Your task to perform on an android device: choose inbox layout in the gmail app Image 0: 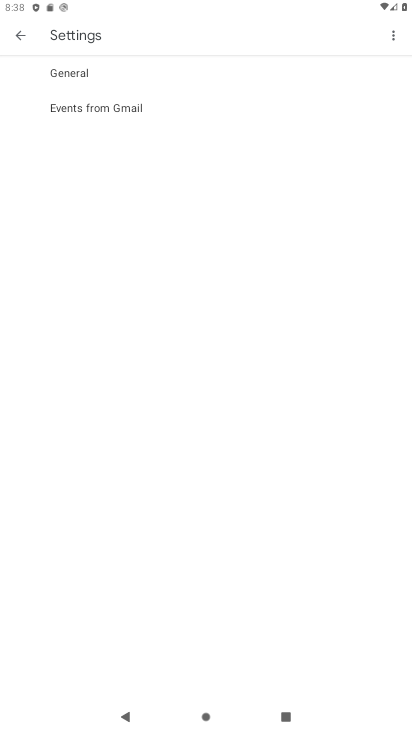
Step 0: press home button
Your task to perform on an android device: choose inbox layout in the gmail app Image 1: 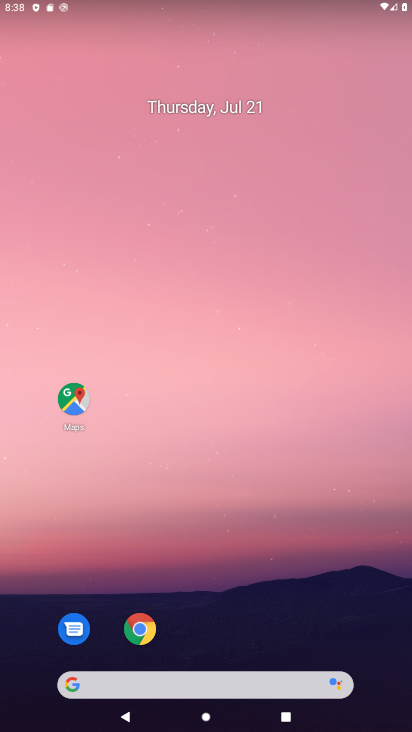
Step 1: drag from (237, 599) to (285, 84)
Your task to perform on an android device: choose inbox layout in the gmail app Image 2: 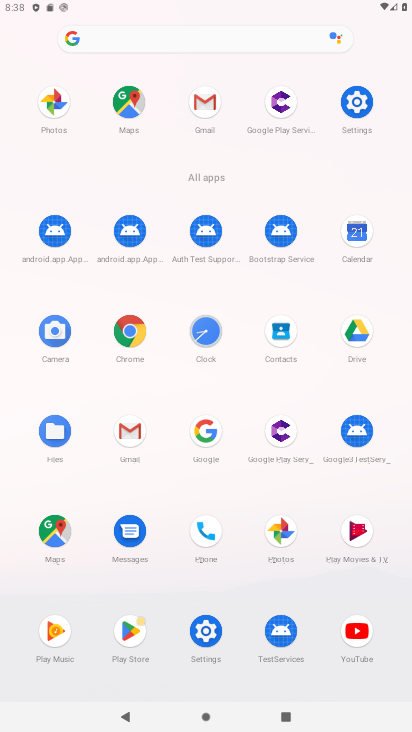
Step 2: click (192, 120)
Your task to perform on an android device: choose inbox layout in the gmail app Image 3: 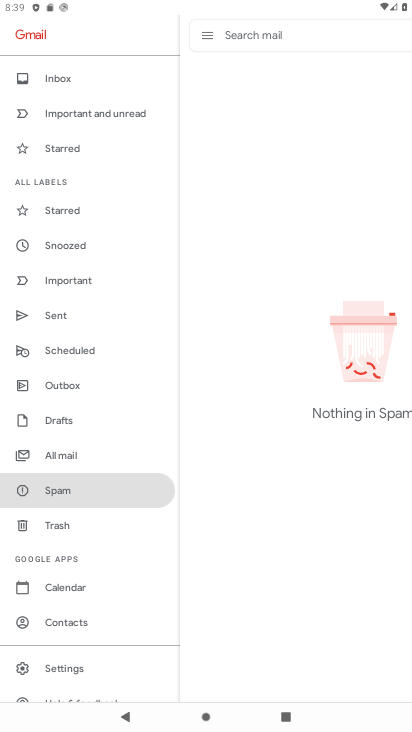
Step 3: click (107, 681)
Your task to perform on an android device: choose inbox layout in the gmail app Image 4: 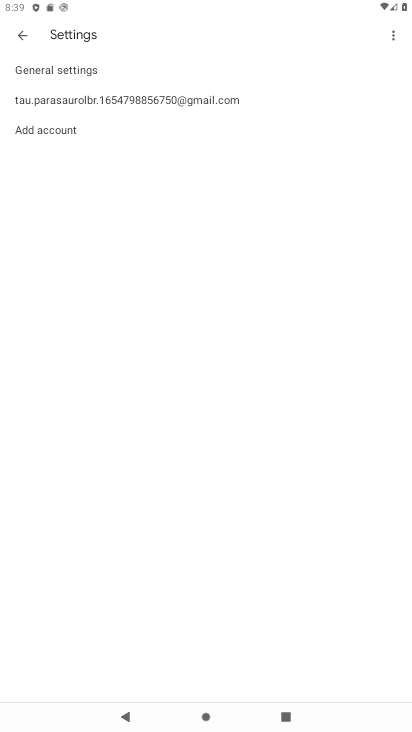
Step 4: click (273, 107)
Your task to perform on an android device: choose inbox layout in the gmail app Image 5: 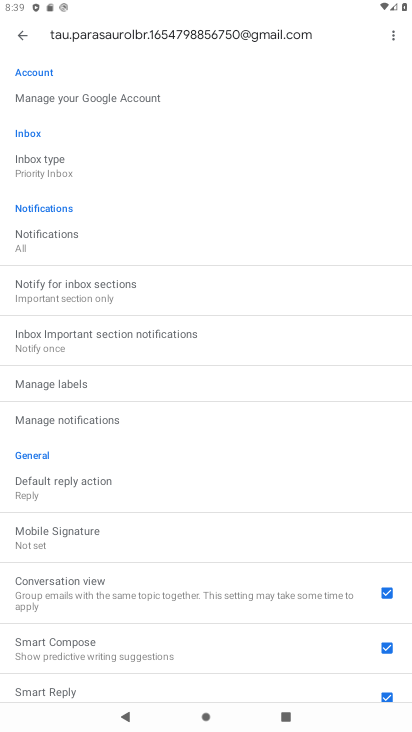
Step 5: click (67, 169)
Your task to perform on an android device: choose inbox layout in the gmail app Image 6: 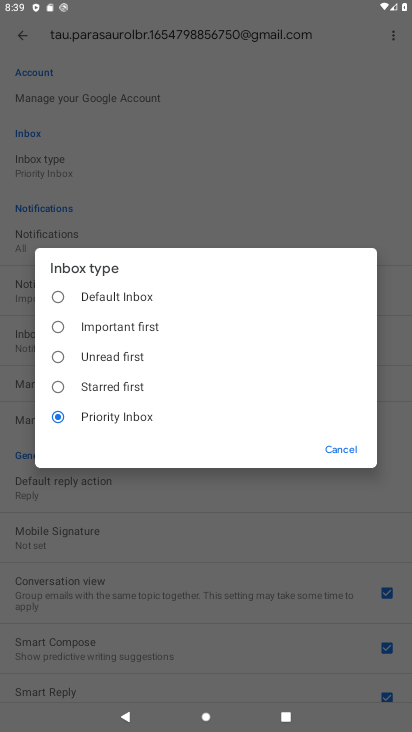
Step 6: click (171, 293)
Your task to perform on an android device: choose inbox layout in the gmail app Image 7: 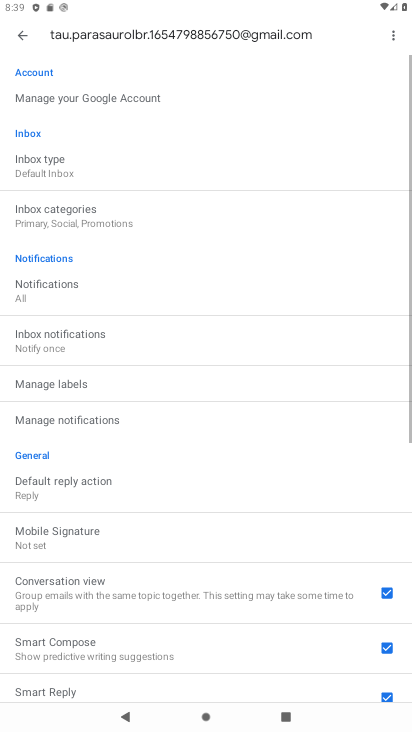
Step 7: task complete